Your task to perform on an android device: star an email in the gmail app Image 0: 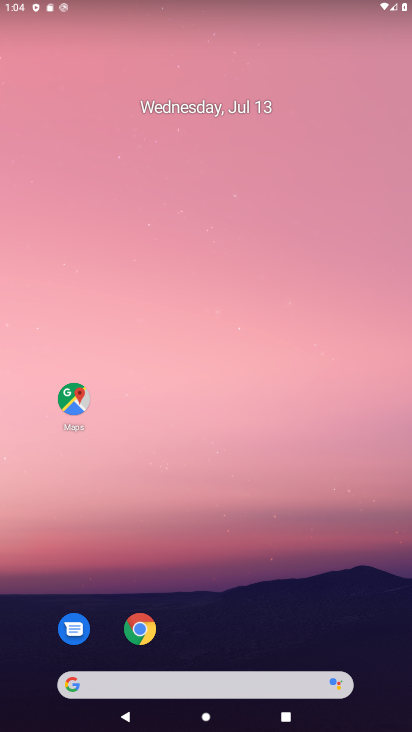
Step 0: drag from (234, 630) to (236, 95)
Your task to perform on an android device: star an email in the gmail app Image 1: 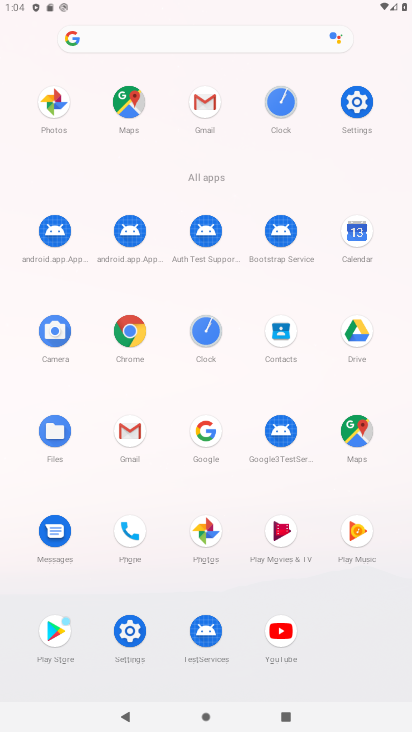
Step 1: click (210, 119)
Your task to perform on an android device: star an email in the gmail app Image 2: 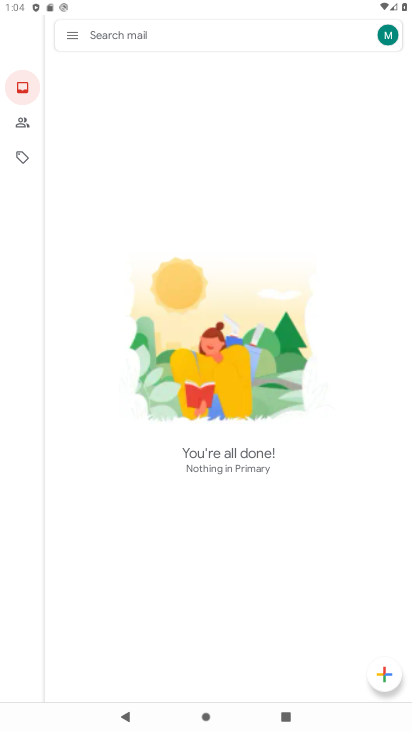
Step 2: click (76, 36)
Your task to perform on an android device: star an email in the gmail app Image 3: 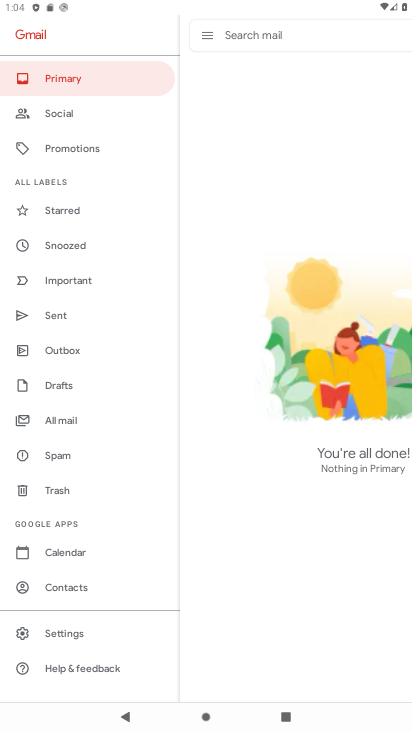
Step 3: click (102, 215)
Your task to perform on an android device: star an email in the gmail app Image 4: 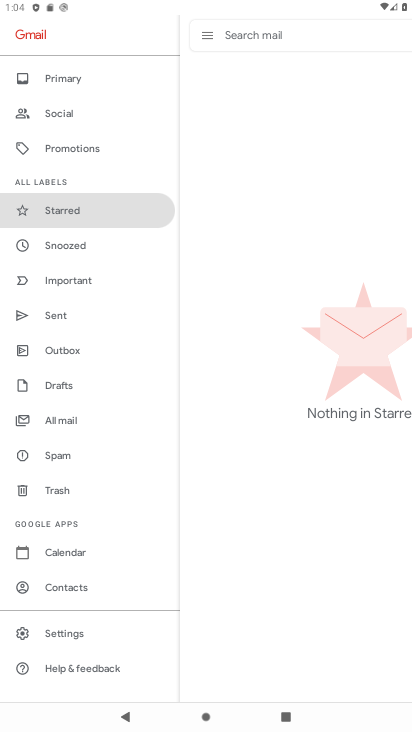
Step 4: task complete